Your task to perform on an android device: Open the calendar app, open the side menu, and click the "Day" option Image 0: 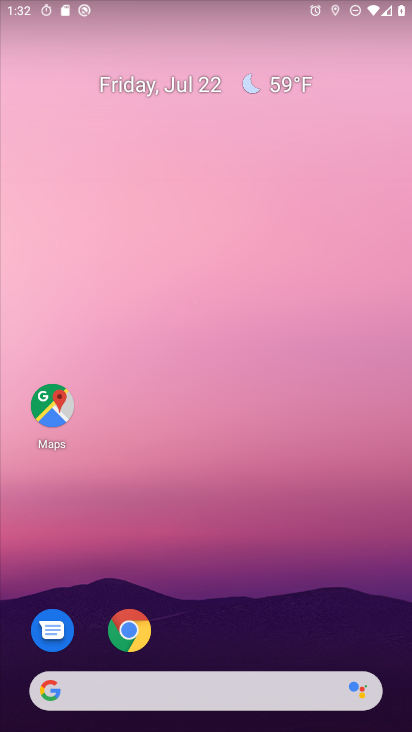
Step 0: press home button
Your task to perform on an android device: Open the calendar app, open the side menu, and click the "Day" option Image 1: 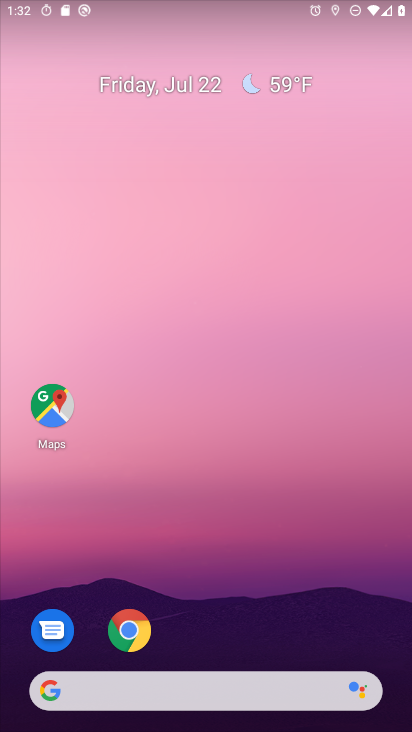
Step 1: drag from (295, 644) to (357, 128)
Your task to perform on an android device: Open the calendar app, open the side menu, and click the "Day" option Image 2: 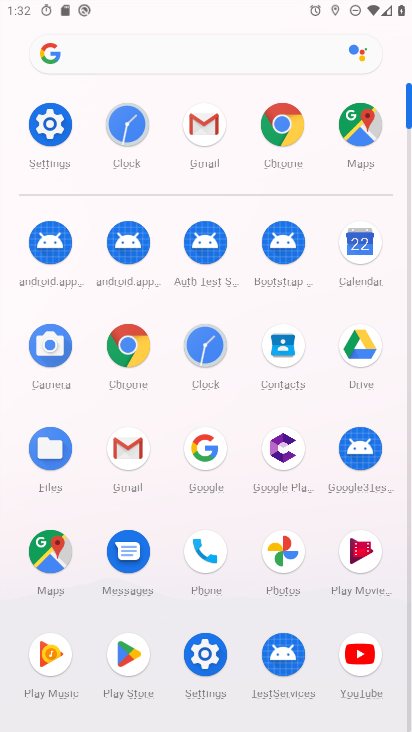
Step 2: click (351, 245)
Your task to perform on an android device: Open the calendar app, open the side menu, and click the "Day" option Image 3: 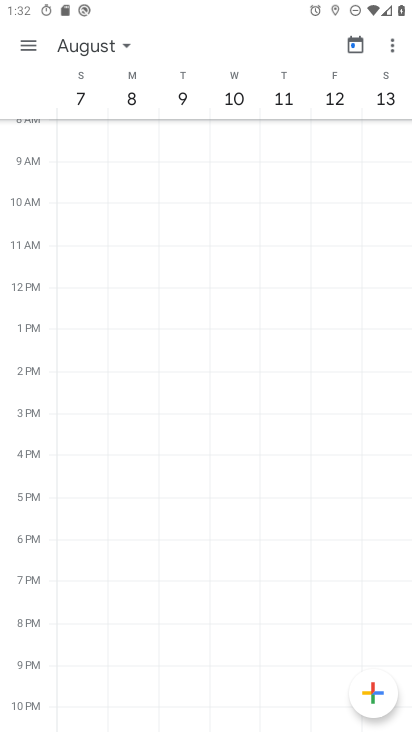
Step 3: click (23, 41)
Your task to perform on an android device: Open the calendar app, open the side menu, and click the "Day" option Image 4: 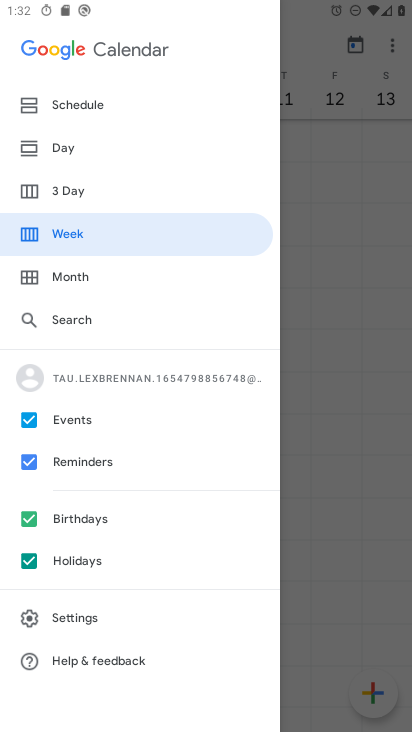
Step 4: click (74, 154)
Your task to perform on an android device: Open the calendar app, open the side menu, and click the "Day" option Image 5: 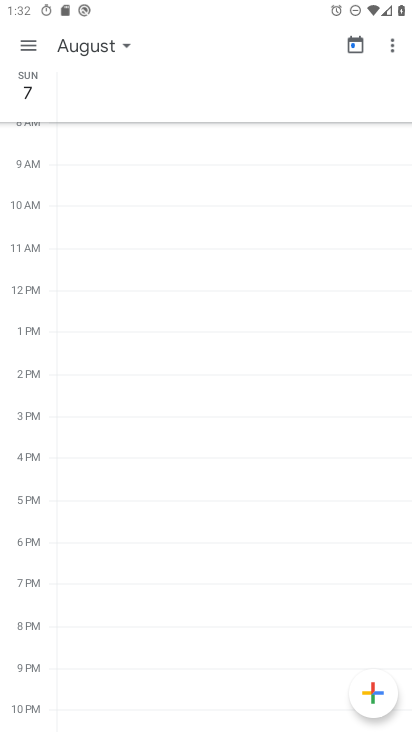
Step 5: task complete